Your task to perform on an android device: What's on my calendar today? Image 0: 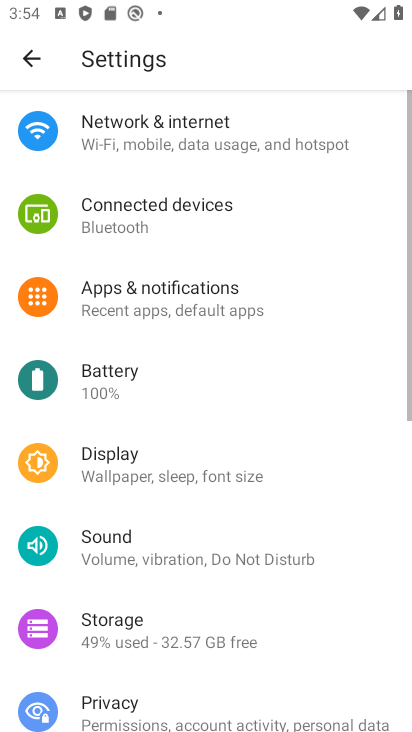
Step 0: press home button
Your task to perform on an android device: What's on my calendar today? Image 1: 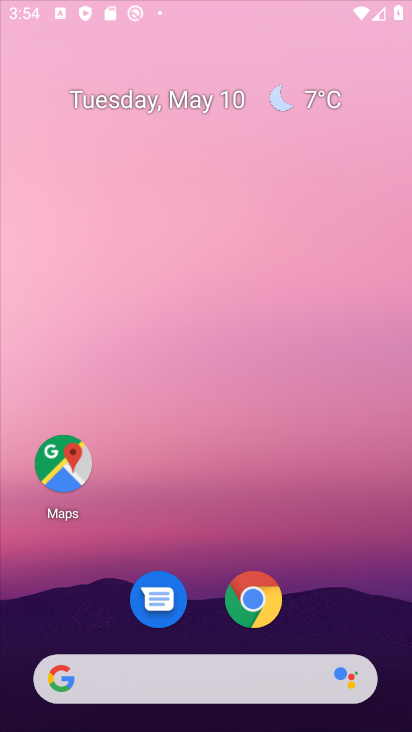
Step 1: drag from (206, 513) to (206, 60)
Your task to perform on an android device: What's on my calendar today? Image 2: 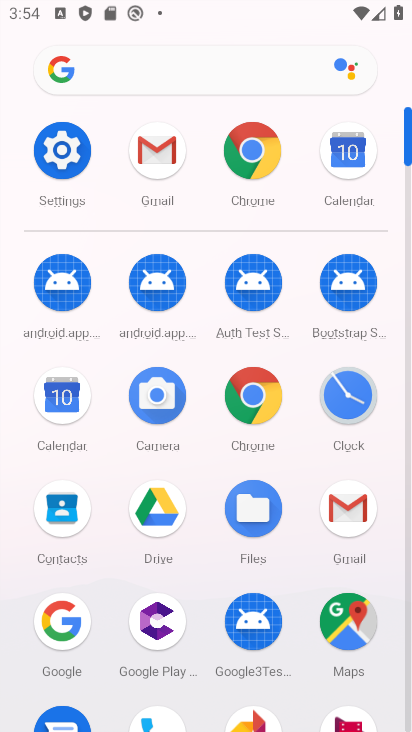
Step 2: click (76, 397)
Your task to perform on an android device: What's on my calendar today? Image 3: 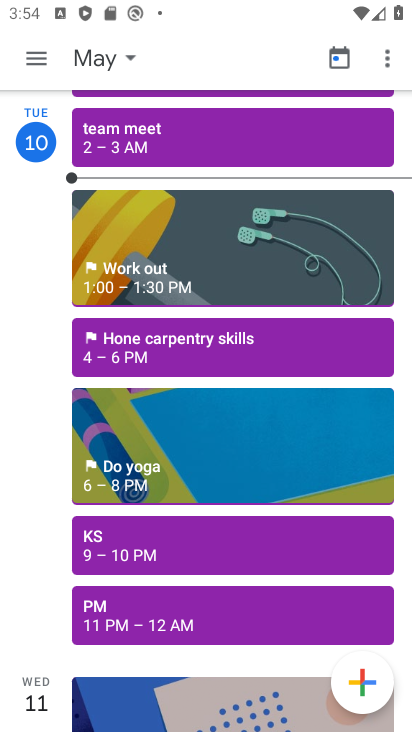
Step 3: task complete